Your task to perform on an android device: Clear all items from cart on amazon.com. Image 0: 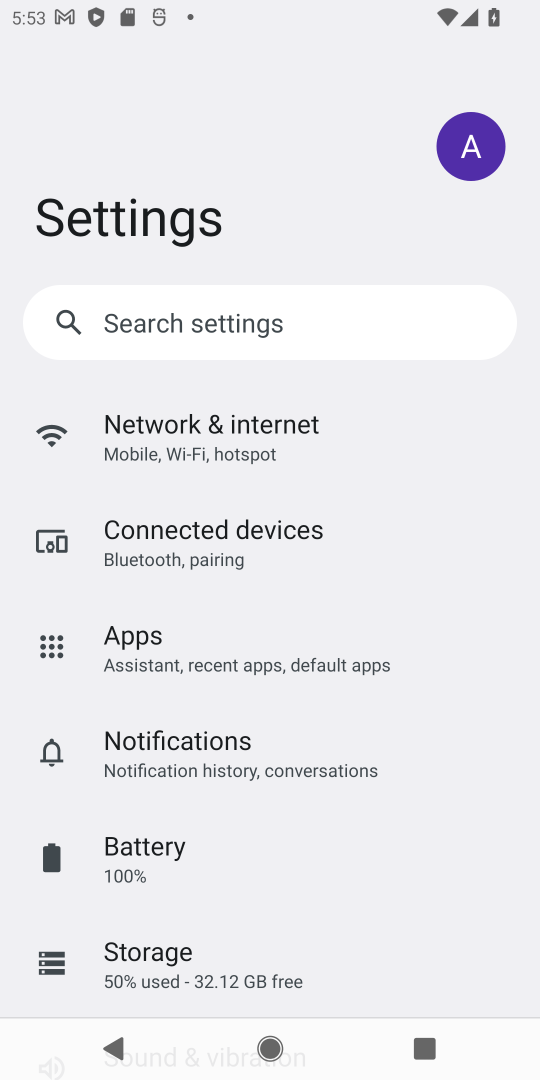
Step 0: press home button
Your task to perform on an android device: Clear all items from cart on amazon.com. Image 1: 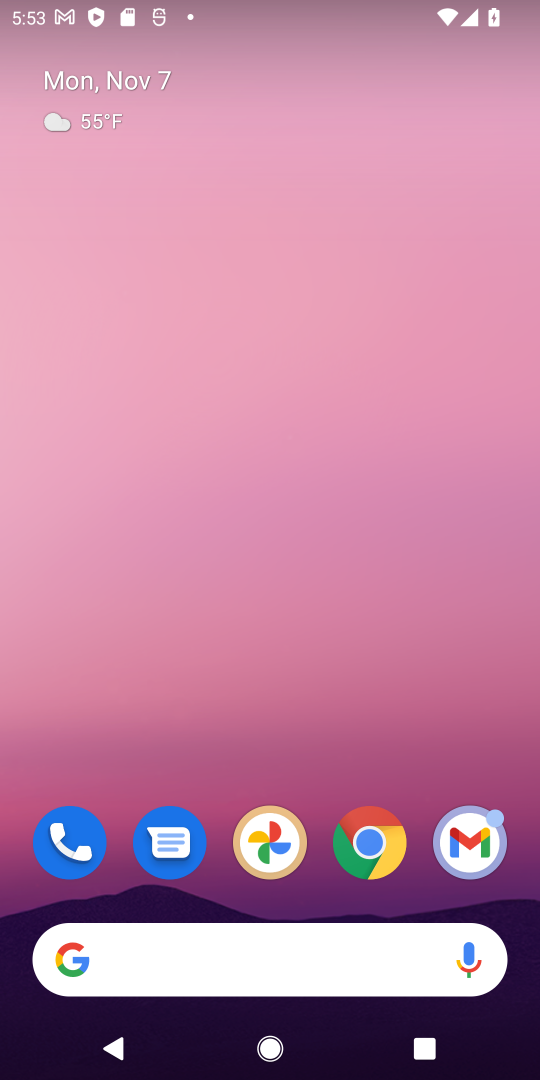
Step 1: click (381, 833)
Your task to perform on an android device: Clear all items from cart on amazon.com. Image 2: 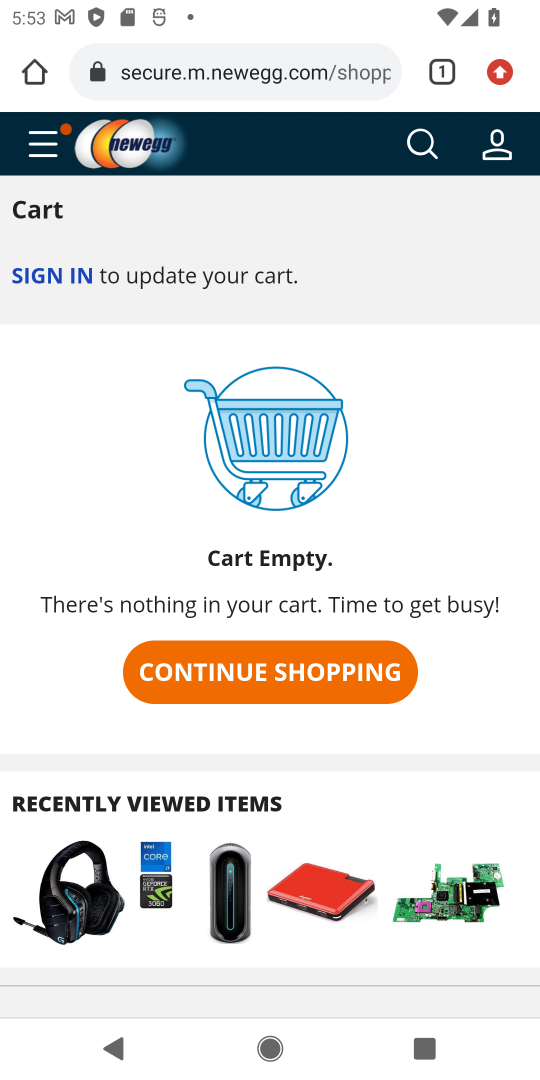
Step 2: click (313, 70)
Your task to perform on an android device: Clear all items from cart on amazon.com. Image 3: 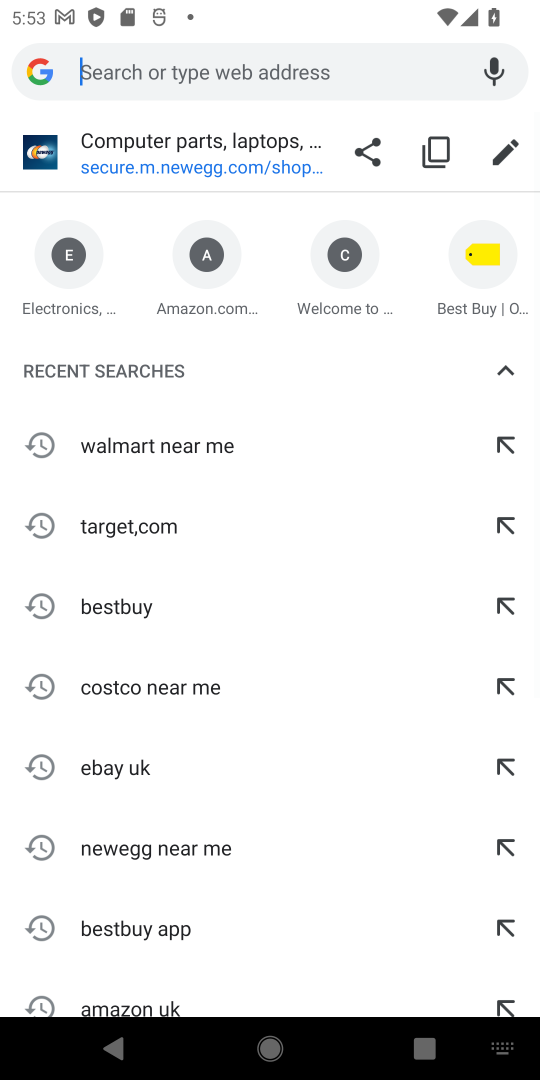
Step 3: click (193, 307)
Your task to perform on an android device: Clear all items from cart on amazon.com. Image 4: 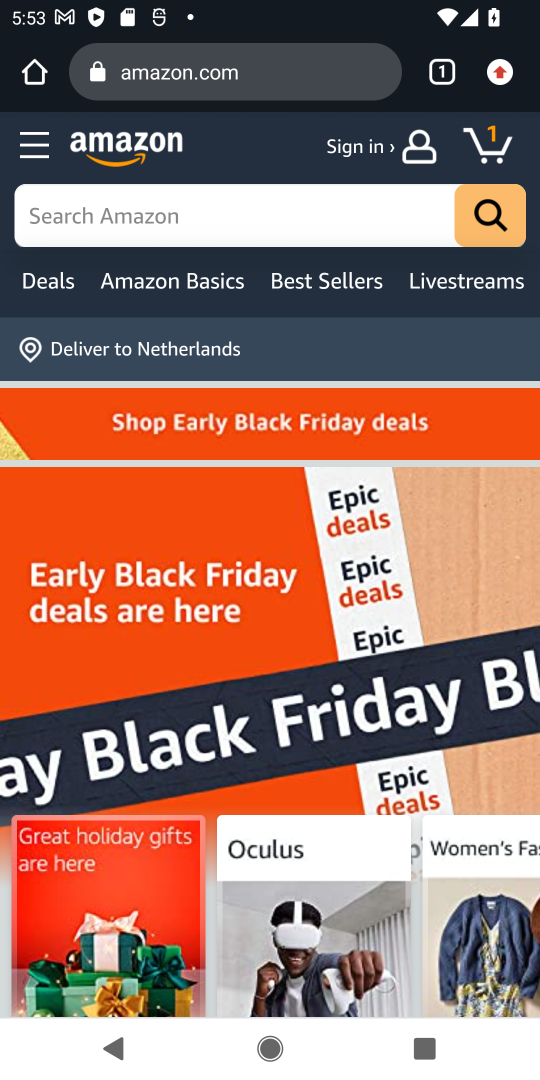
Step 4: click (500, 136)
Your task to perform on an android device: Clear all items from cart on amazon.com. Image 5: 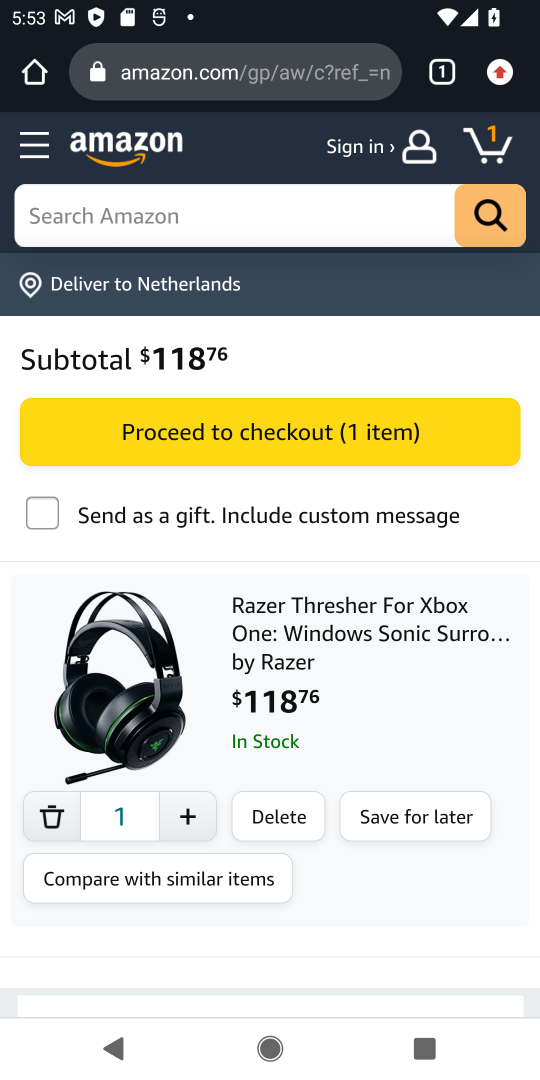
Step 5: click (285, 819)
Your task to perform on an android device: Clear all items from cart on amazon.com. Image 6: 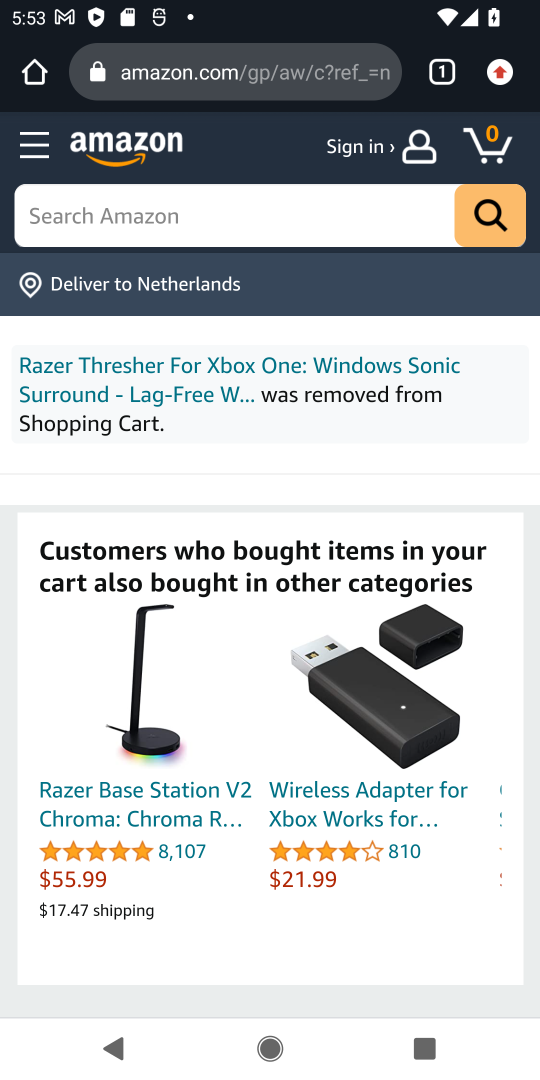
Step 6: task complete